Your task to perform on an android device: turn off smart reply in the gmail app Image 0: 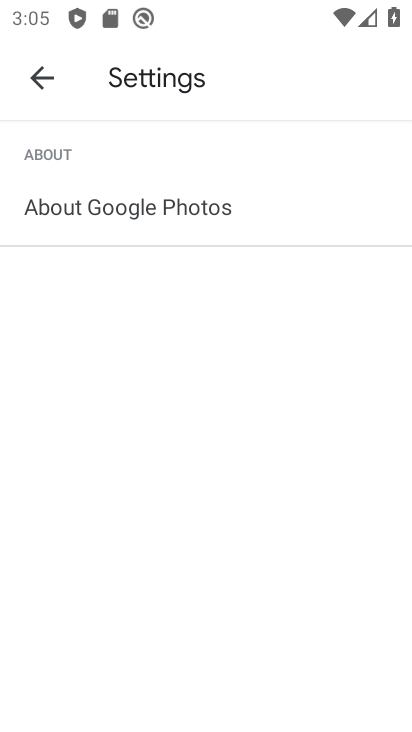
Step 0: press back button
Your task to perform on an android device: turn off smart reply in the gmail app Image 1: 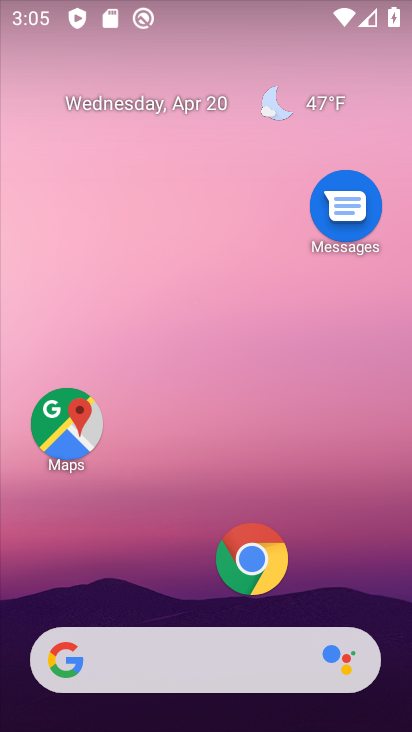
Step 1: drag from (123, 618) to (241, 75)
Your task to perform on an android device: turn off smart reply in the gmail app Image 2: 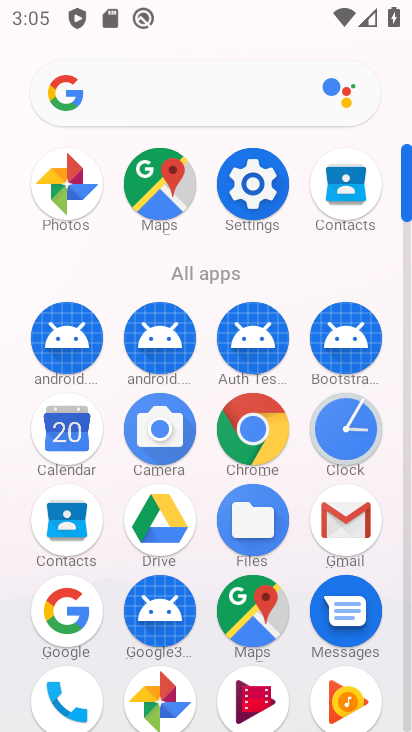
Step 2: click (356, 528)
Your task to perform on an android device: turn off smart reply in the gmail app Image 3: 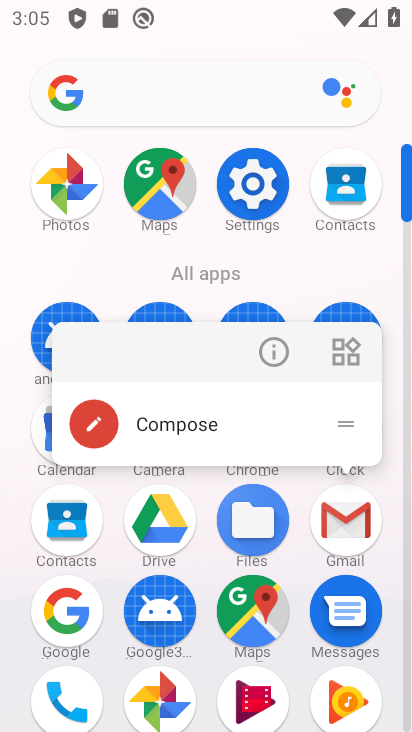
Step 3: click (354, 524)
Your task to perform on an android device: turn off smart reply in the gmail app Image 4: 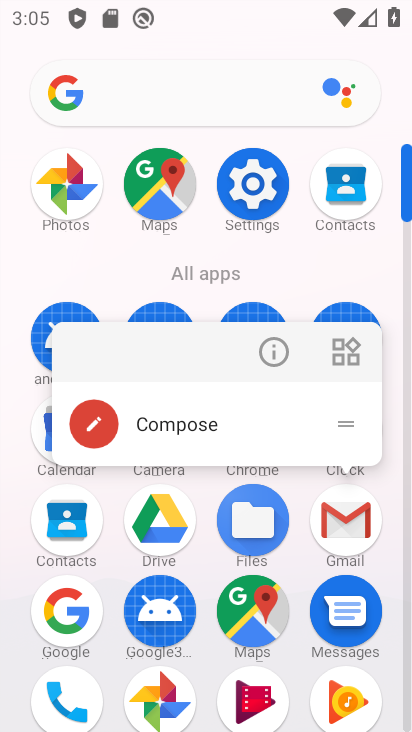
Step 4: click (347, 530)
Your task to perform on an android device: turn off smart reply in the gmail app Image 5: 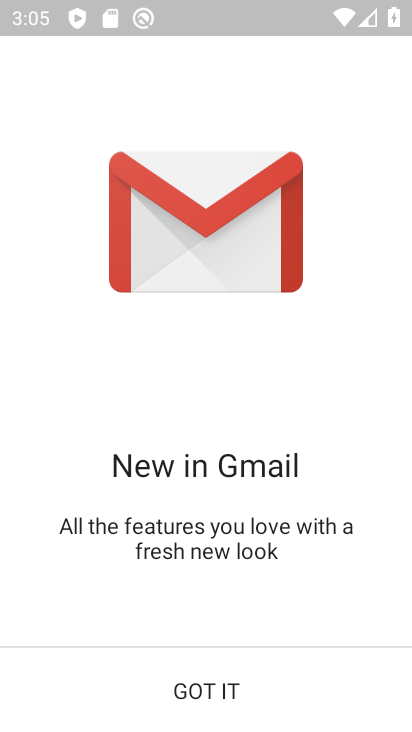
Step 5: click (195, 684)
Your task to perform on an android device: turn off smart reply in the gmail app Image 6: 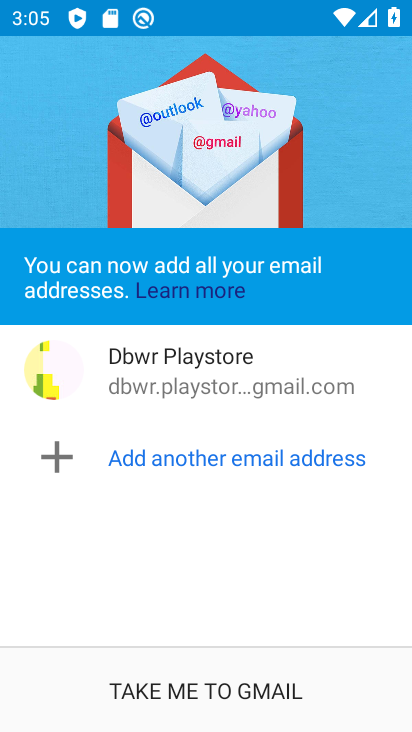
Step 6: click (190, 664)
Your task to perform on an android device: turn off smart reply in the gmail app Image 7: 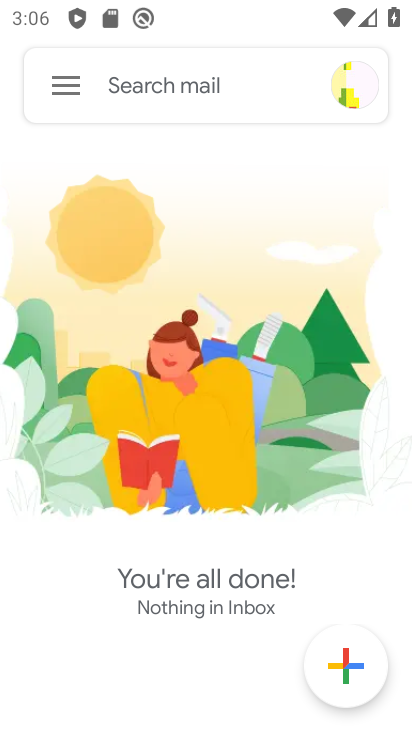
Step 7: click (59, 98)
Your task to perform on an android device: turn off smart reply in the gmail app Image 8: 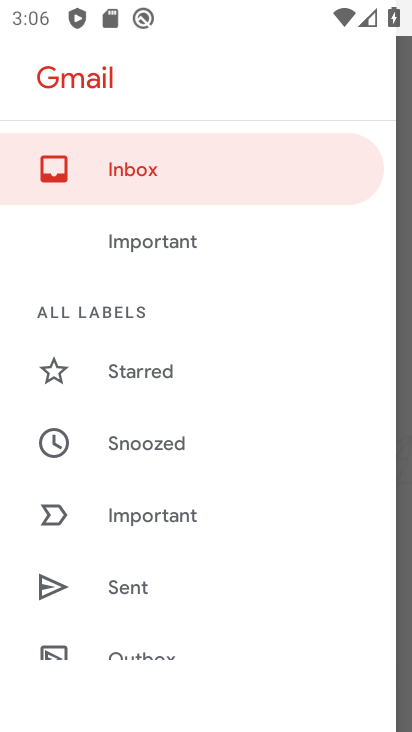
Step 8: drag from (124, 670) to (328, 121)
Your task to perform on an android device: turn off smart reply in the gmail app Image 9: 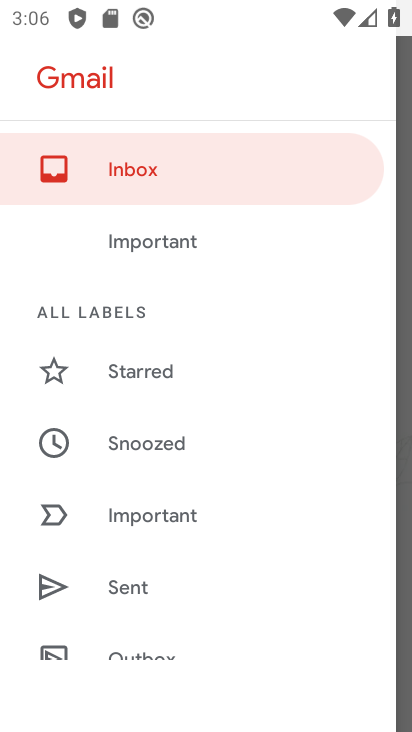
Step 9: drag from (137, 557) to (252, 205)
Your task to perform on an android device: turn off smart reply in the gmail app Image 10: 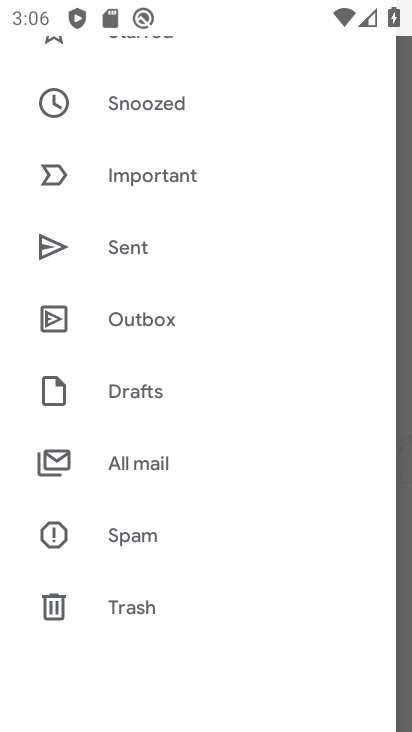
Step 10: drag from (190, 581) to (296, 263)
Your task to perform on an android device: turn off smart reply in the gmail app Image 11: 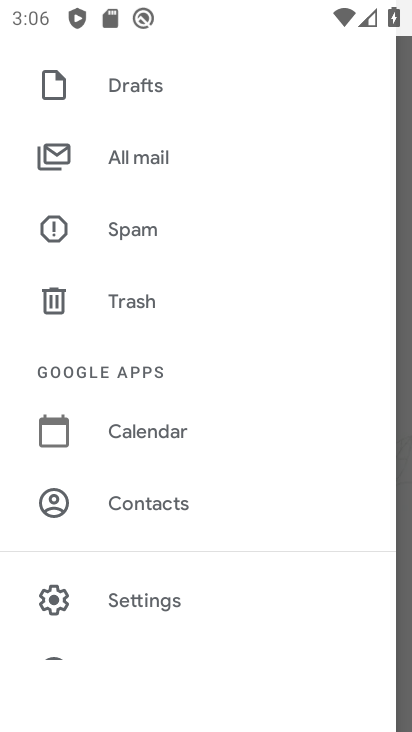
Step 11: click (172, 607)
Your task to perform on an android device: turn off smart reply in the gmail app Image 12: 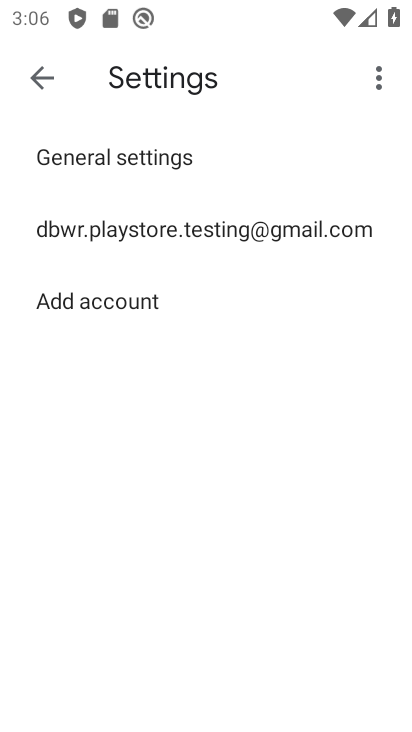
Step 12: click (267, 245)
Your task to perform on an android device: turn off smart reply in the gmail app Image 13: 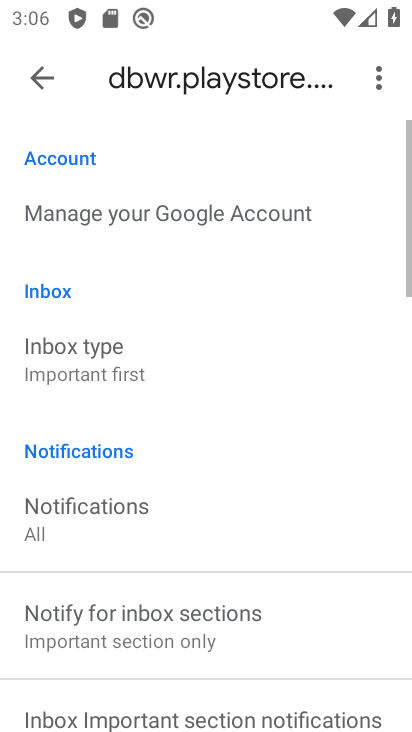
Step 13: drag from (149, 605) to (269, 107)
Your task to perform on an android device: turn off smart reply in the gmail app Image 14: 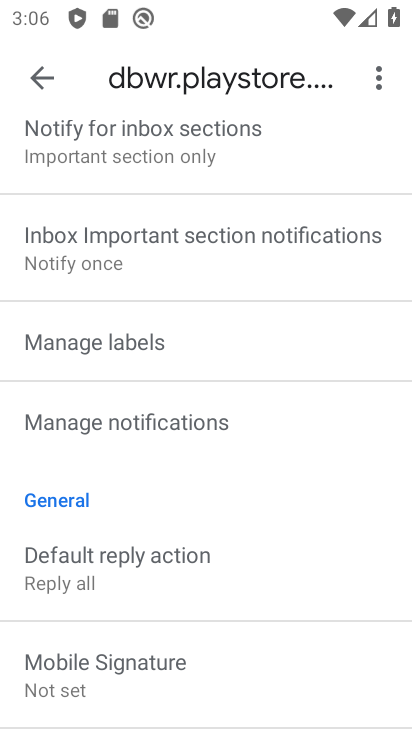
Step 14: drag from (224, 577) to (391, 131)
Your task to perform on an android device: turn off smart reply in the gmail app Image 15: 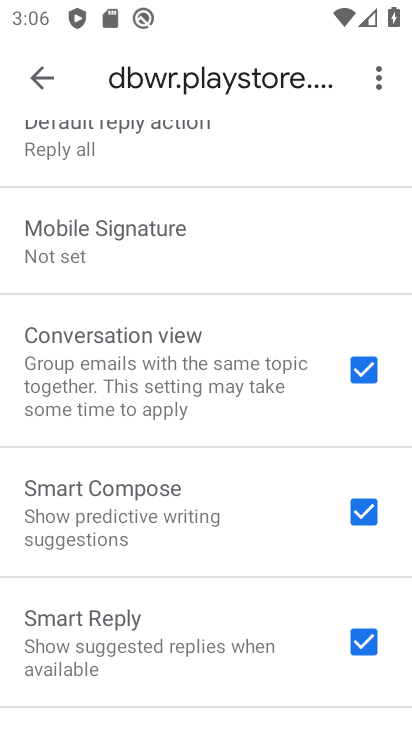
Step 15: click (365, 644)
Your task to perform on an android device: turn off smart reply in the gmail app Image 16: 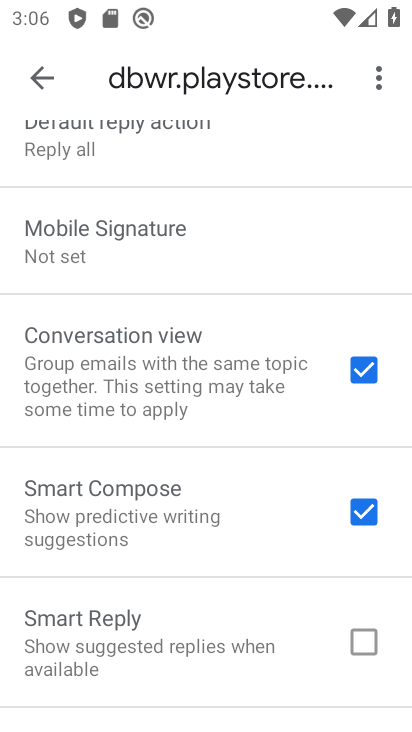
Step 16: task complete